Your task to perform on an android device: Open privacy settings Image 0: 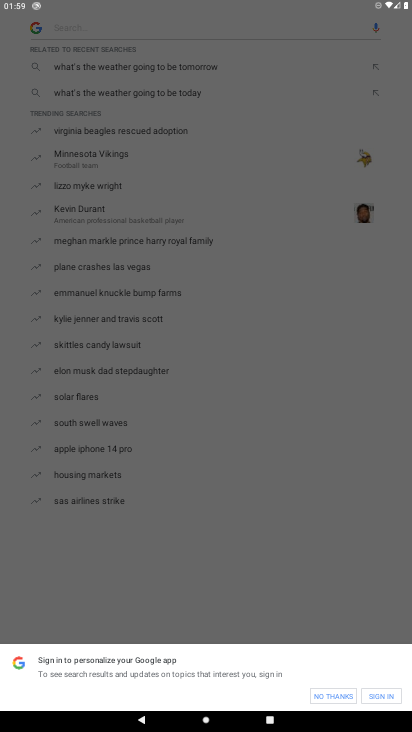
Step 0: press home button
Your task to perform on an android device: Open privacy settings Image 1: 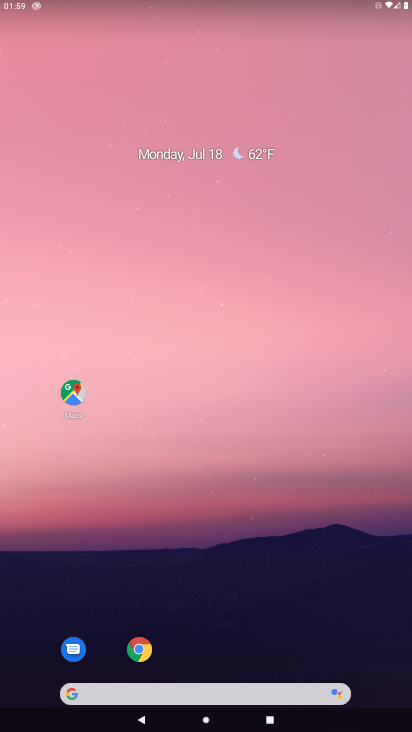
Step 1: drag from (41, 681) to (141, 244)
Your task to perform on an android device: Open privacy settings Image 2: 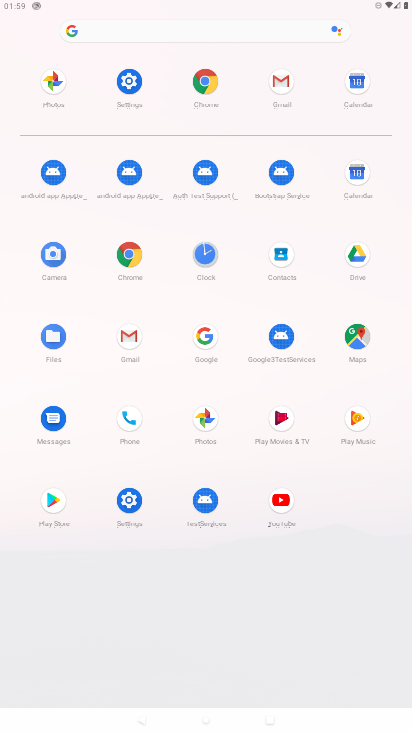
Step 2: click (121, 512)
Your task to perform on an android device: Open privacy settings Image 3: 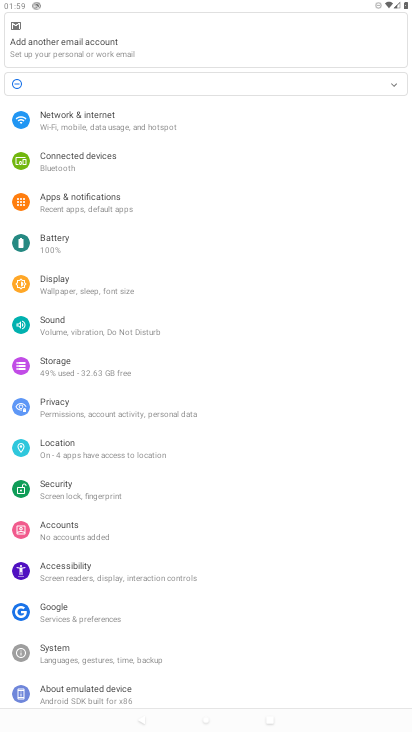
Step 3: click (94, 122)
Your task to perform on an android device: Open privacy settings Image 4: 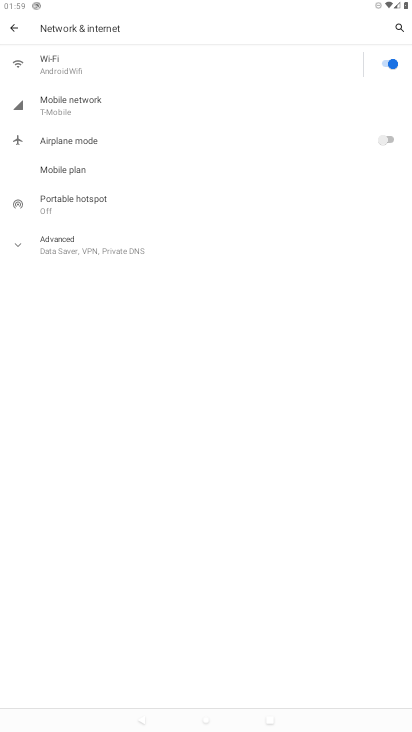
Step 4: click (12, 26)
Your task to perform on an android device: Open privacy settings Image 5: 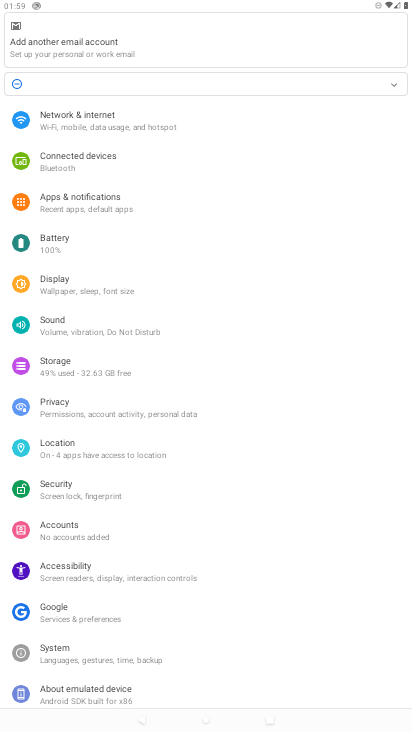
Step 5: click (59, 416)
Your task to perform on an android device: Open privacy settings Image 6: 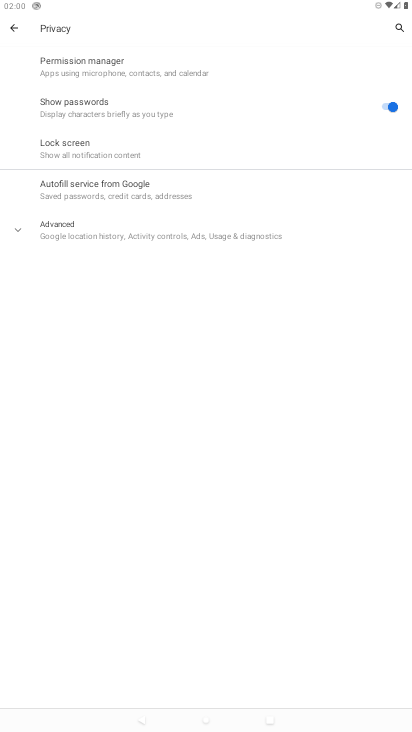
Step 6: task complete